Your task to perform on an android device: toggle improve location accuracy Image 0: 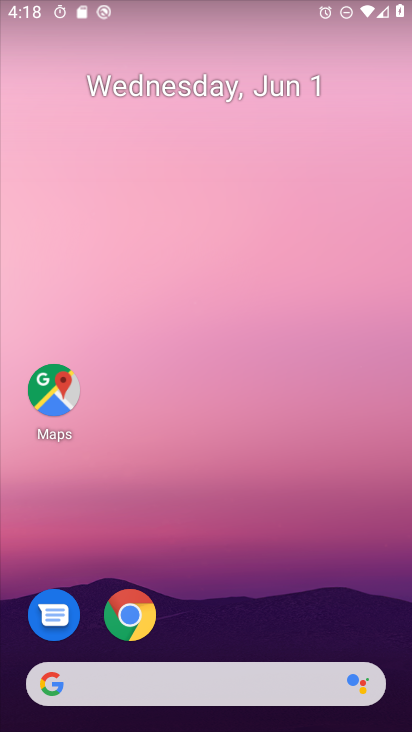
Step 0: drag from (338, 612) to (355, 0)
Your task to perform on an android device: toggle improve location accuracy Image 1: 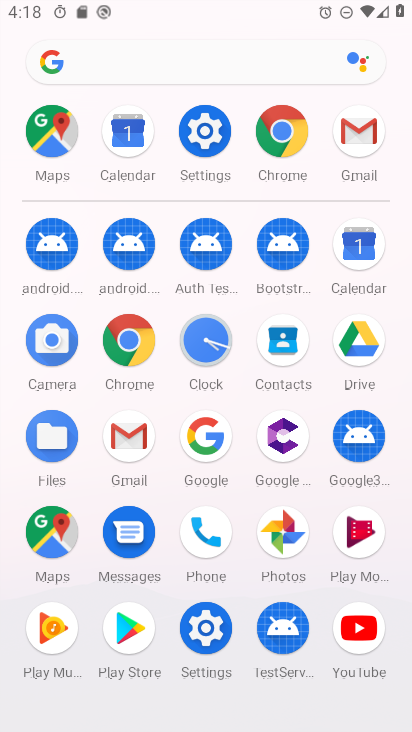
Step 1: click (200, 160)
Your task to perform on an android device: toggle improve location accuracy Image 2: 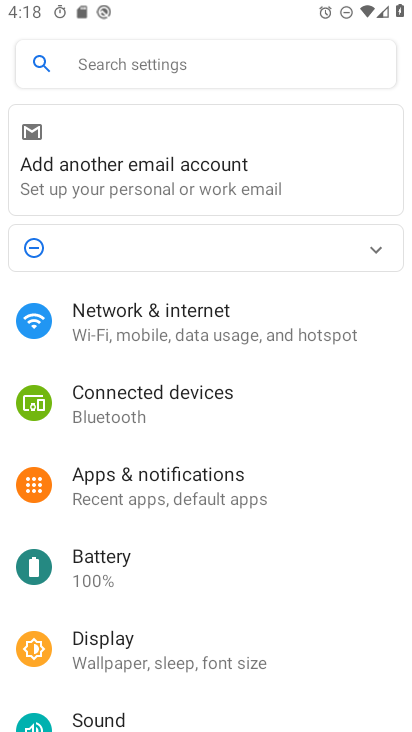
Step 2: drag from (237, 666) to (369, 174)
Your task to perform on an android device: toggle improve location accuracy Image 3: 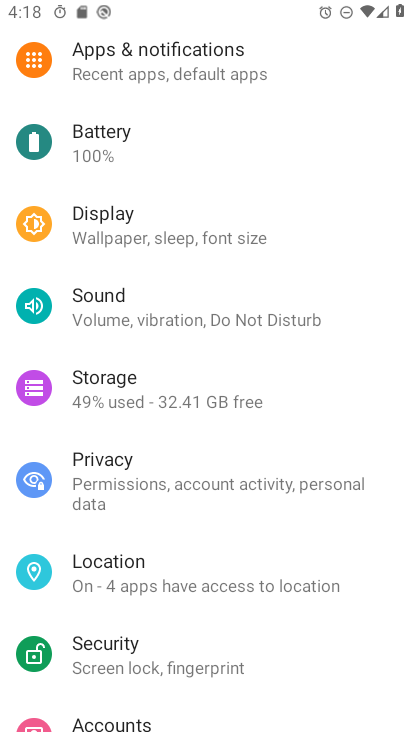
Step 3: click (168, 583)
Your task to perform on an android device: toggle improve location accuracy Image 4: 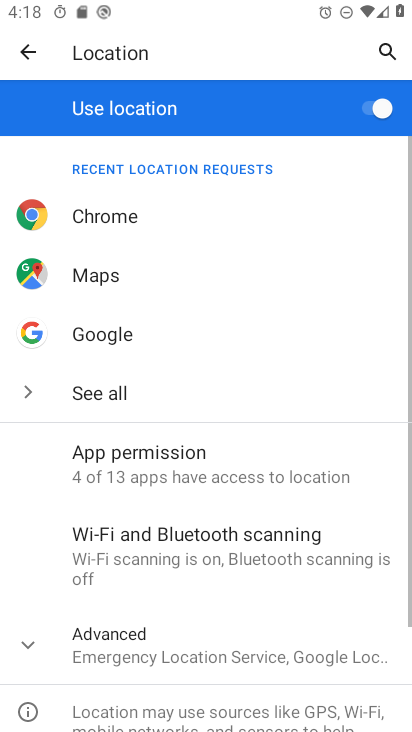
Step 4: click (219, 638)
Your task to perform on an android device: toggle improve location accuracy Image 5: 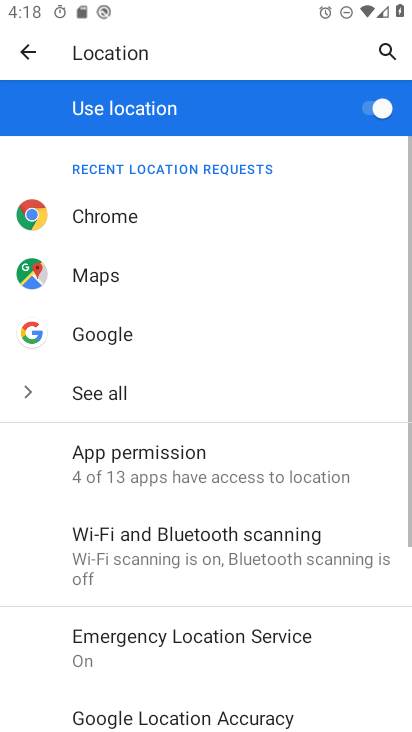
Step 5: drag from (240, 681) to (282, 143)
Your task to perform on an android device: toggle improve location accuracy Image 6: 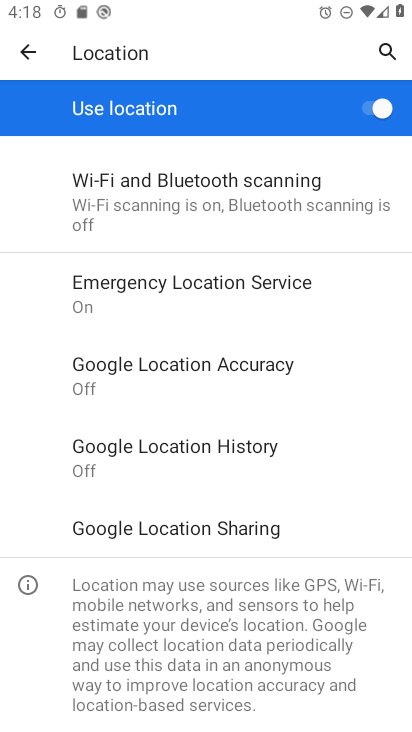
Step 6: click (212, 378)
Your task to perform on an android device: toggle improve location accuracy Image 7: 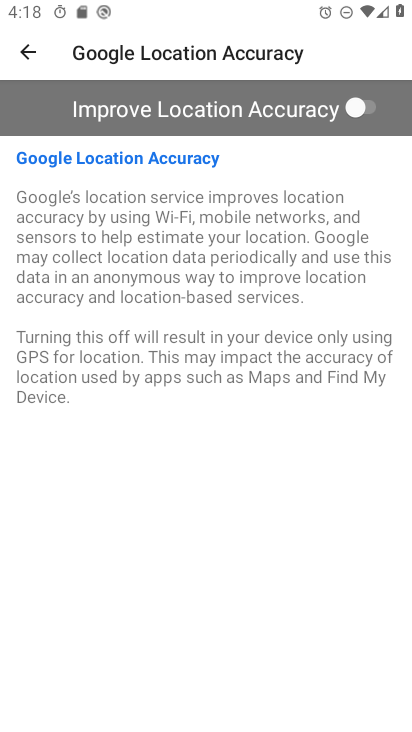
Step 7: click (372, 98)
Your task to perform on an android device: toggle improve location accuracy Image 8: 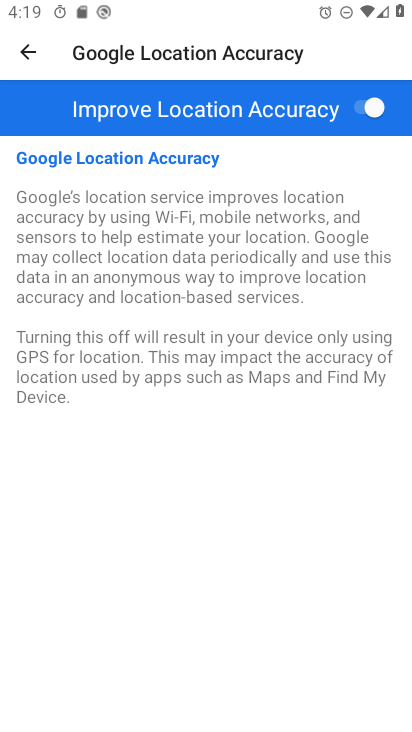
Step 8: task complete